Your task to perform on an android device: change the clock style Image 0: 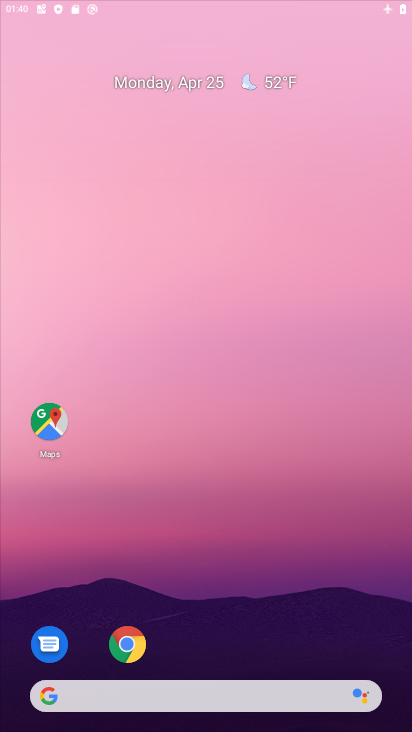
Step 0: click (222, 51)
Your task to perform on an android device: change the clock style Image 1: 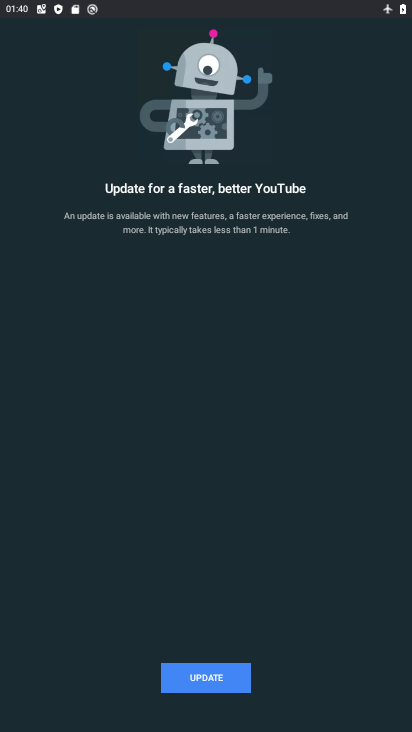
Step 1: press back button
Your task to perform on an android device: change the clock style Image 2: 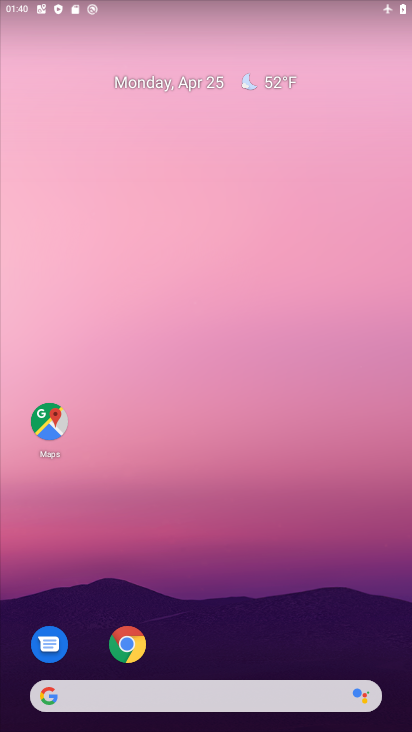
Step 2: drag from (268, 638) to (167, 25)
Your task to perform on an android device: change the clock style Image 3: 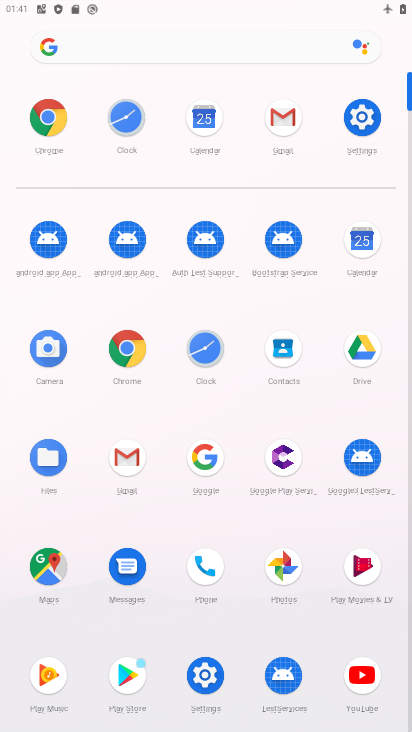
Step 3: click (105, 116)
Your task to perform on an android device: change the clock style Image 4: 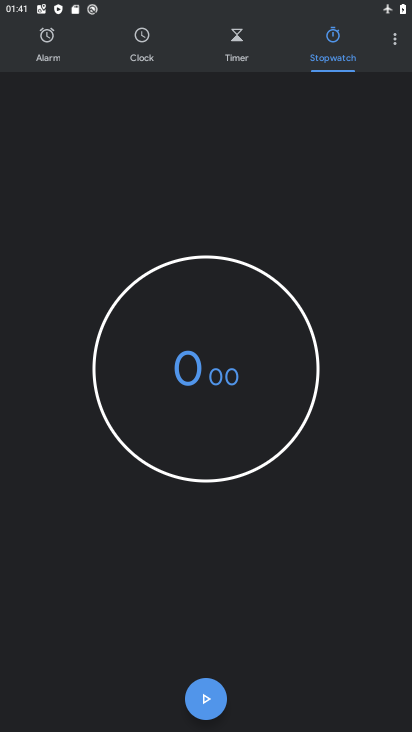
Step 4: click (383, 41)
Your task to perform on an android device: change the clock style Image 5: 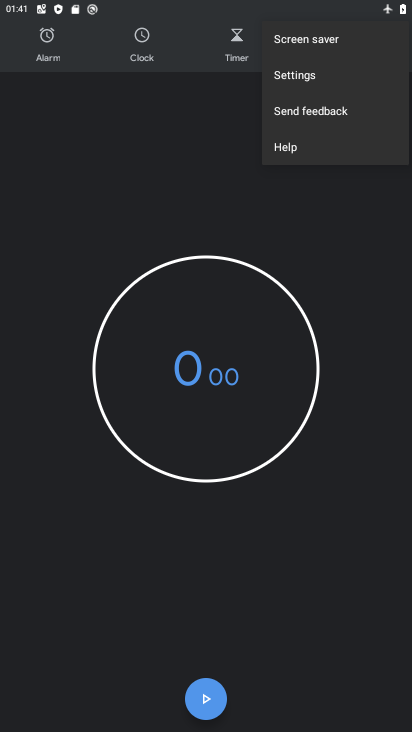
Step 5: click (341, 69)
Your task to perform on an android device: change the clock style Image 6: 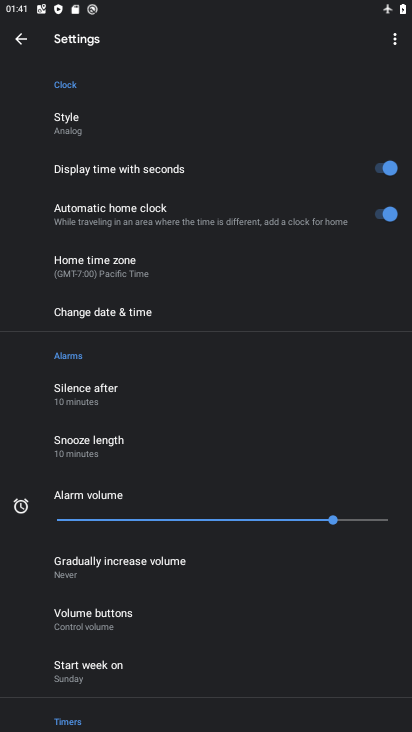
Step 6: click (131, 132)
Your task to perform on an android device: change the clock style Image 7: 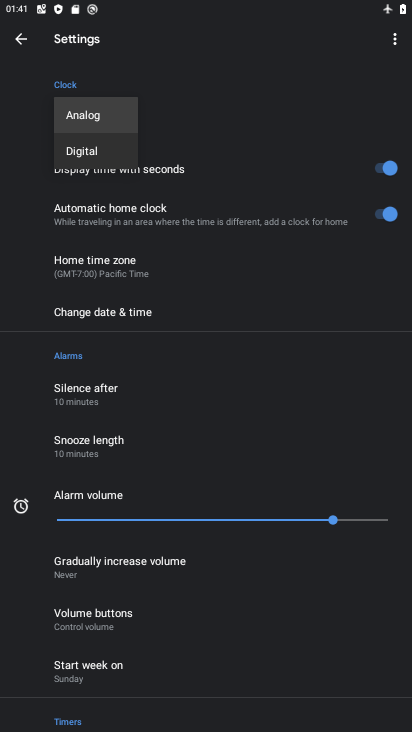
Step 7: click (106, 150)
Your task to perform on an android device: change the clock style Image 8: 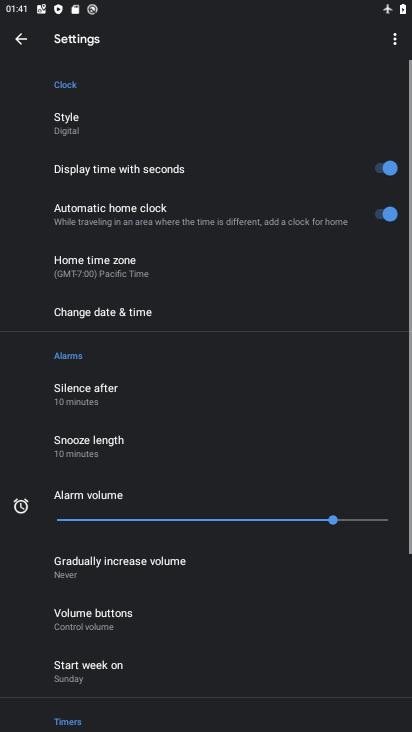
Step 8: task complete